Your task to perform on an android device: Go to Amazon Image 0: 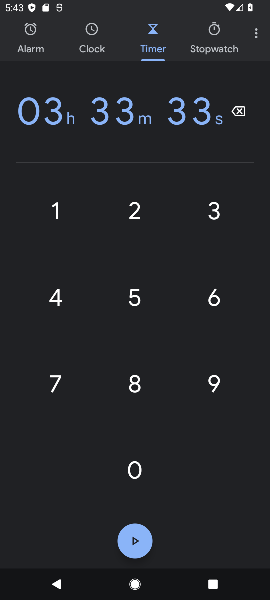
Step 0: press home button
Your task to perform on an android device: Go to Amazon Image 1: 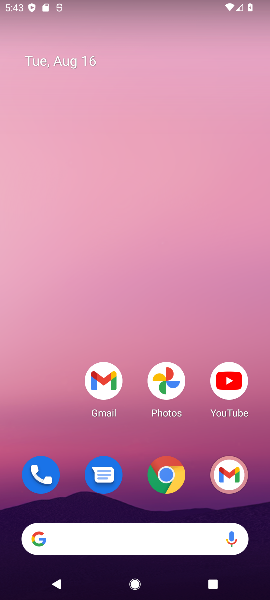
Step 1: drag from (256, 492) to (145, 16)
Your task to perform on an android device: Go to Amazon Image 2: 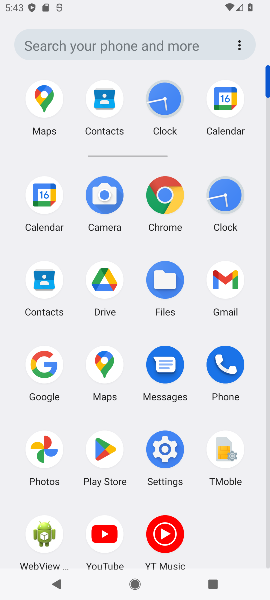
Step 2: click (19, 372)
Your task to perform on an android device: Go to Amazon Image 3: 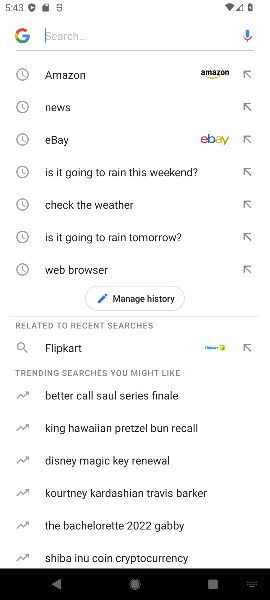
Step 3: click (87, 69)
Your task to perform on an android device: Go to Amazon Image 4: 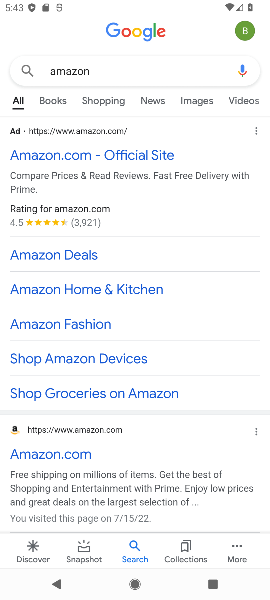
Step 4: task complete